Your task to perform on an android device: Open Yahoo.com Image 0: 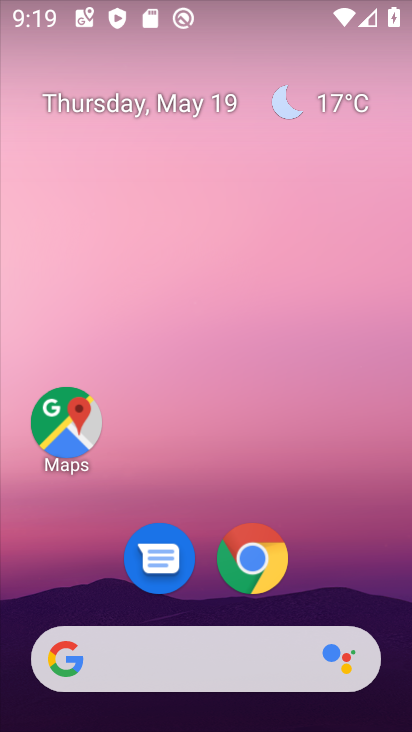
Step 0: click (257, 560)
Your task to perform on an android device: Open Yahoo.com Image 1: 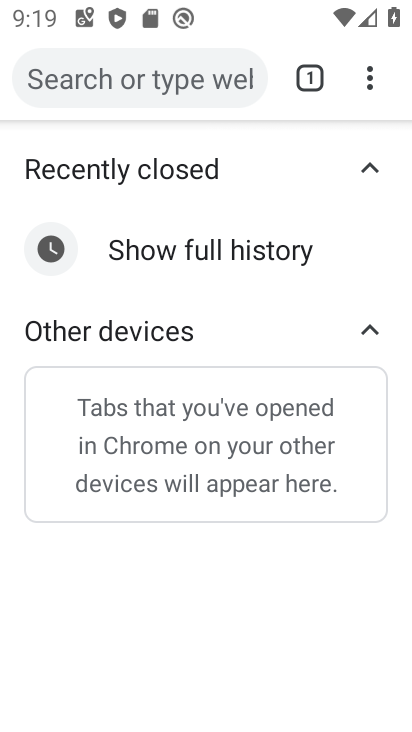
Step 1: click (370, 84)
Your task to perform on an android device: Open Yahoo.com Image 2: 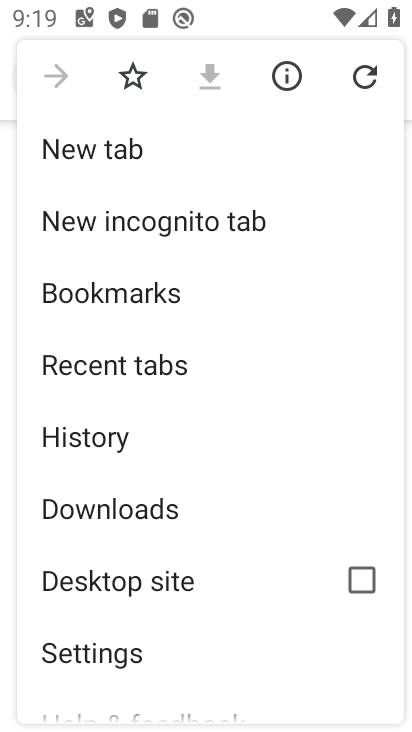
Step 2: click (104, 155)
Your task to perform on an android device: Open Yahoo.com Image 3: 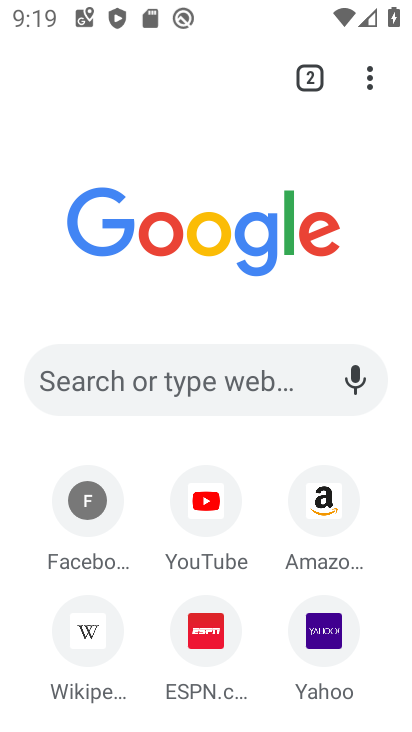
Step 3: click (325, 633)
Your task to perform on an android device: Open Yahoo.com Image 4: 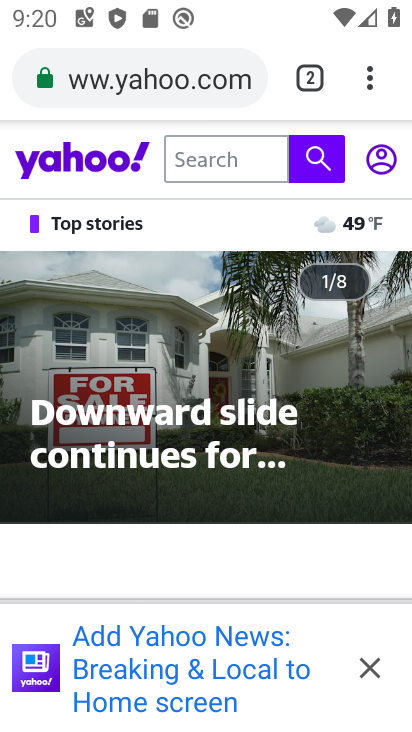
Step 4: task complete